Your task to perform on an android device: See recent photos Image 0: 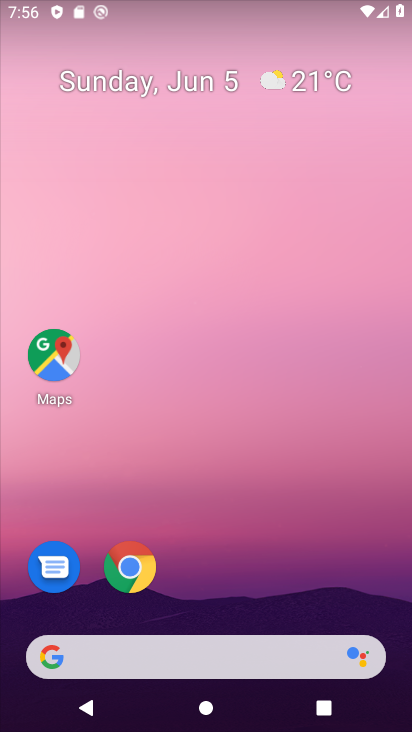
Step 0: drag from (191, 633) to (237, 196)
Your task to perform on an android device: See recent photos Image 1: 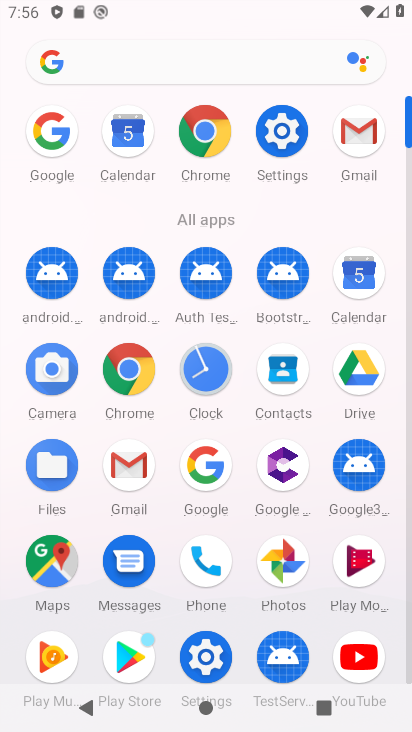
Step 1: click (283, 568)
Your task to perform on an android device: See recent photos Image 2: 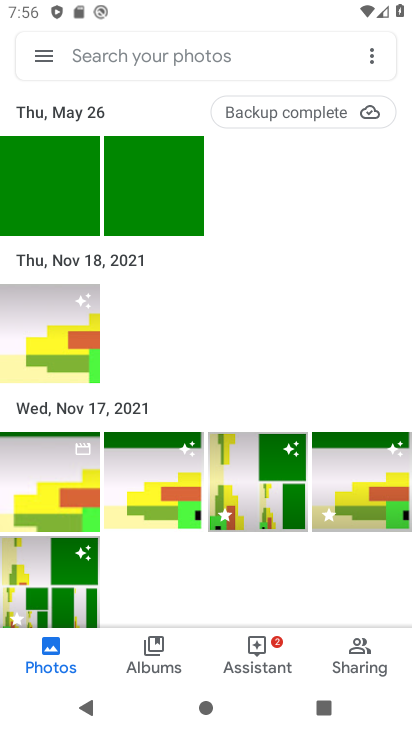
Step 2: click (44, 181)
Your task to perform on an android device: See recent photos Image 3: 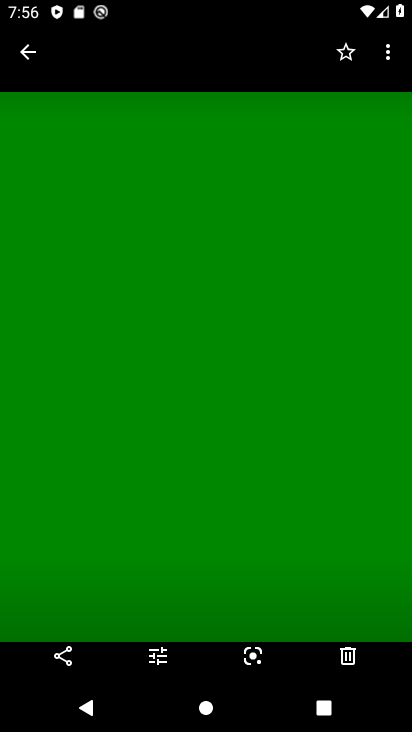
Step 3: task complete